Your task to perform on an android device: Add "apple airpods" to the cart on newegg, then select checkout. Image 0: 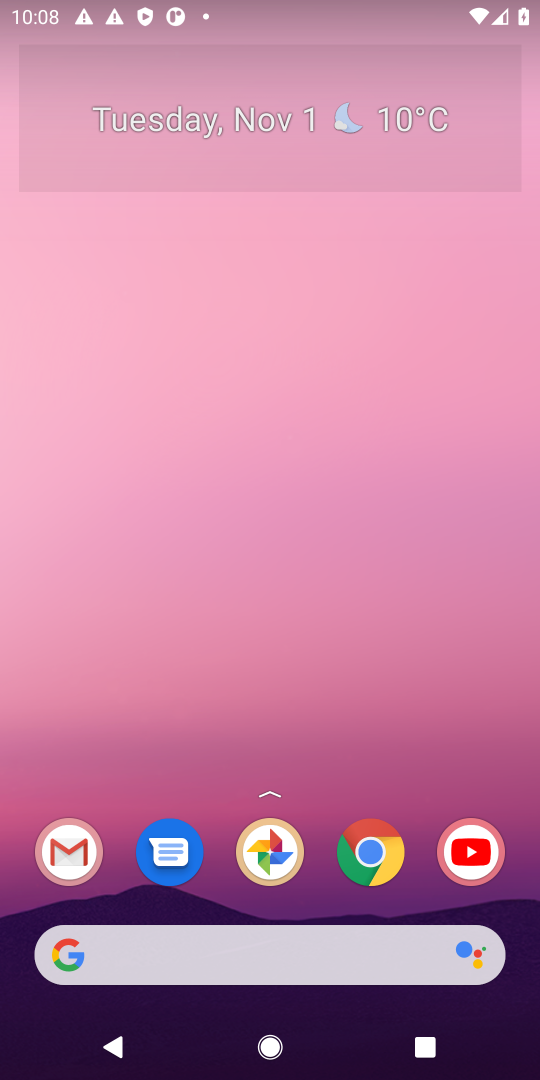
Step 0: press home button
Your task to perform on an android device: Add "apple airpods" to the cart on newegg, then select checkout. Image 1: 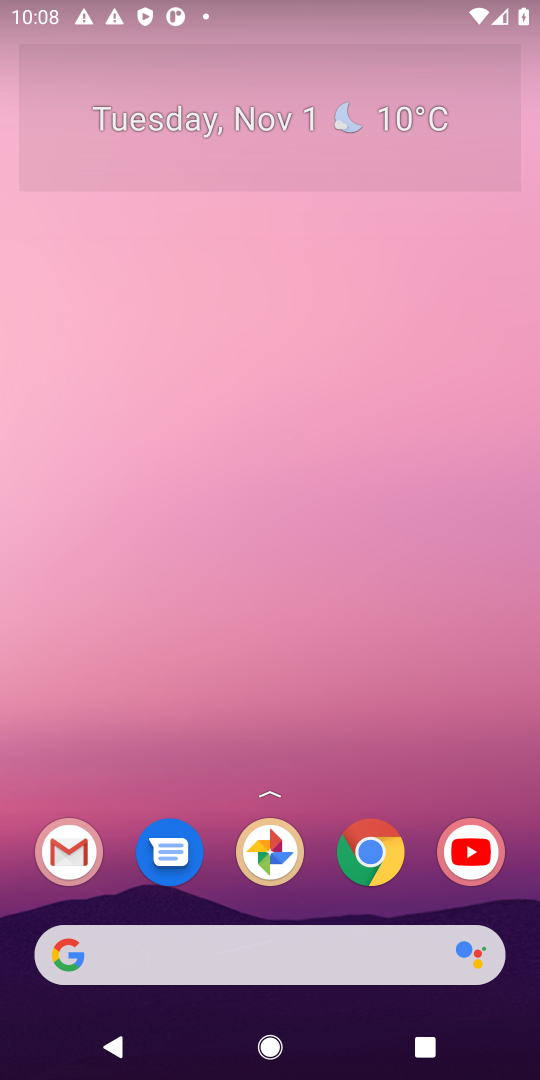
Step 1: click (69, 960)
Your task to perform on an android device: Add "apple airpods" to the cart on newegg, then select checkout. Image 2: 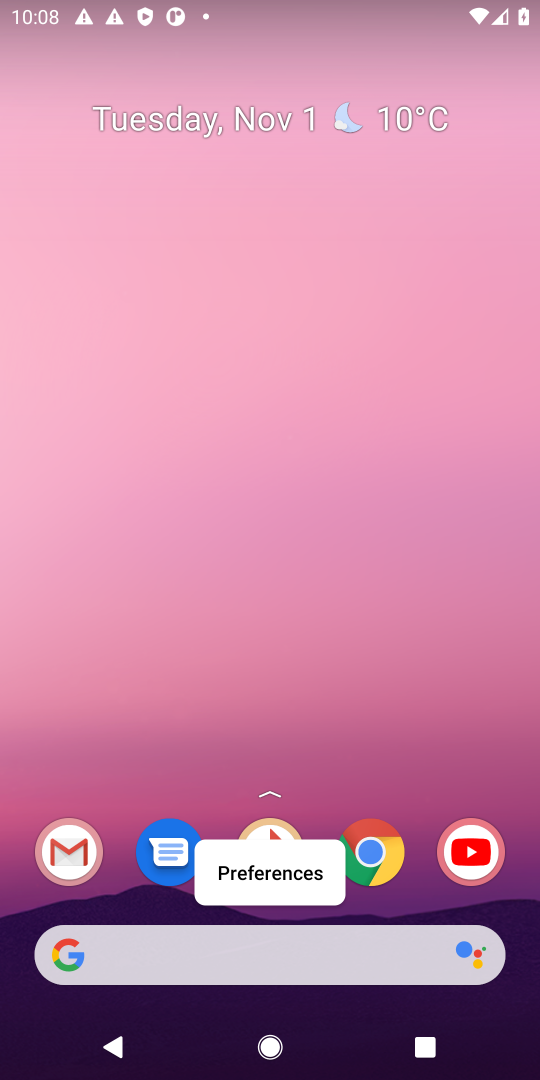
Step 2: click (73, 955)
Your task to perform on an android device: Add "apple airpods" to the cart on newegg, then select checkout. Image 3: 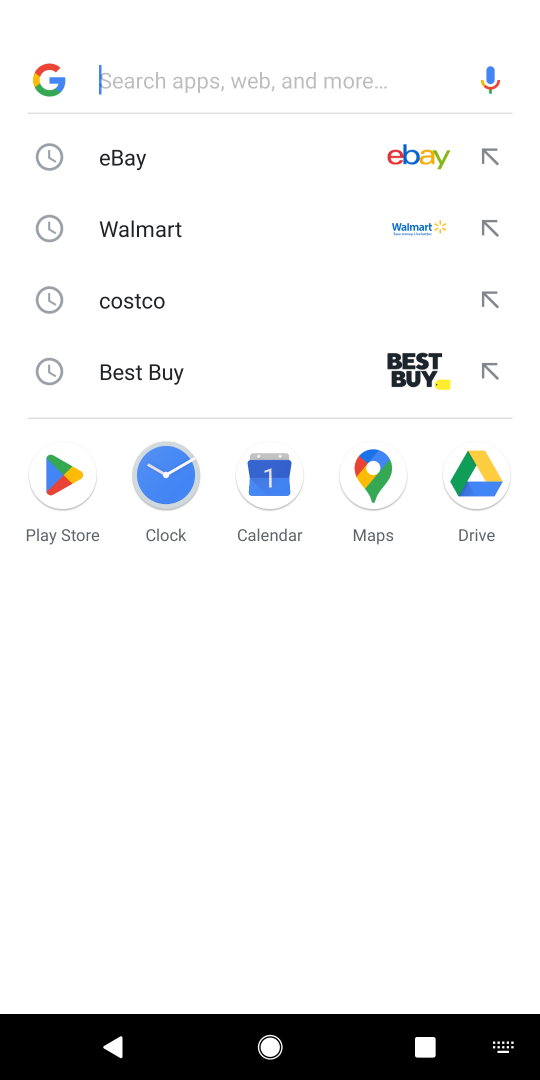
Step 3: type "newegg"
Your task to perform on an android device: Add "apple airpods" to the cart on newegg, then select checkout. Image 4: 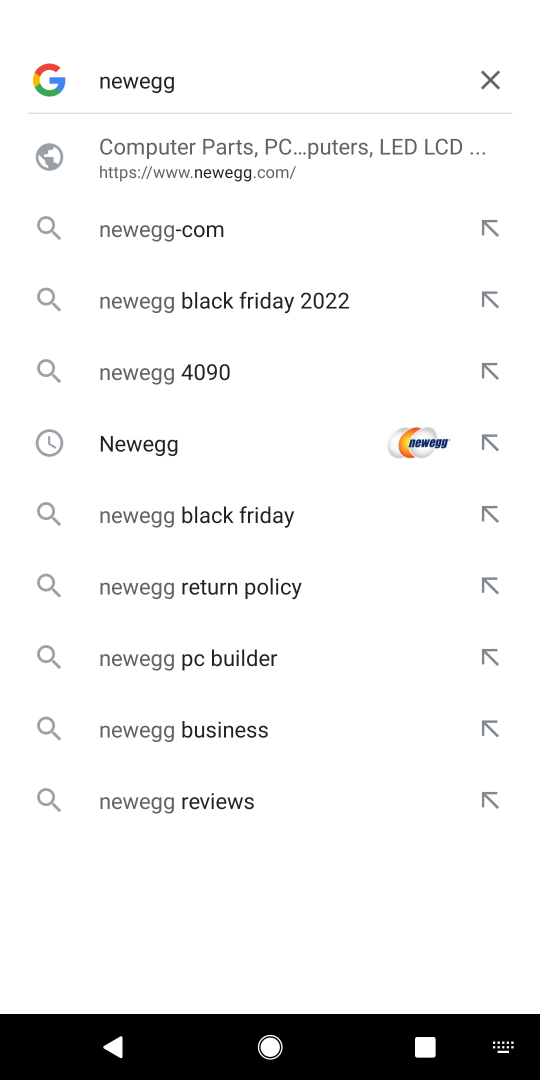
Step 4: press enter
Your task to perform on an android device: Add "apple airpods" to the cart on newegg, then select checkout. Image 5: 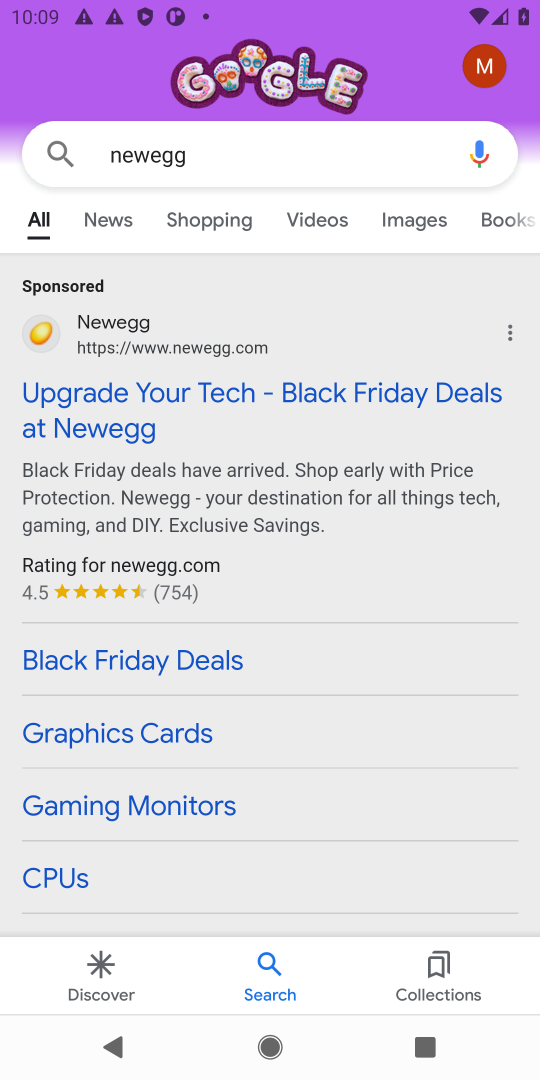
Step 5: drag from (402, 776) to (429, 266)
Your task to perform on an android device: Add "apple airpods" to the cart on newegg, then select checkout. Image 6: 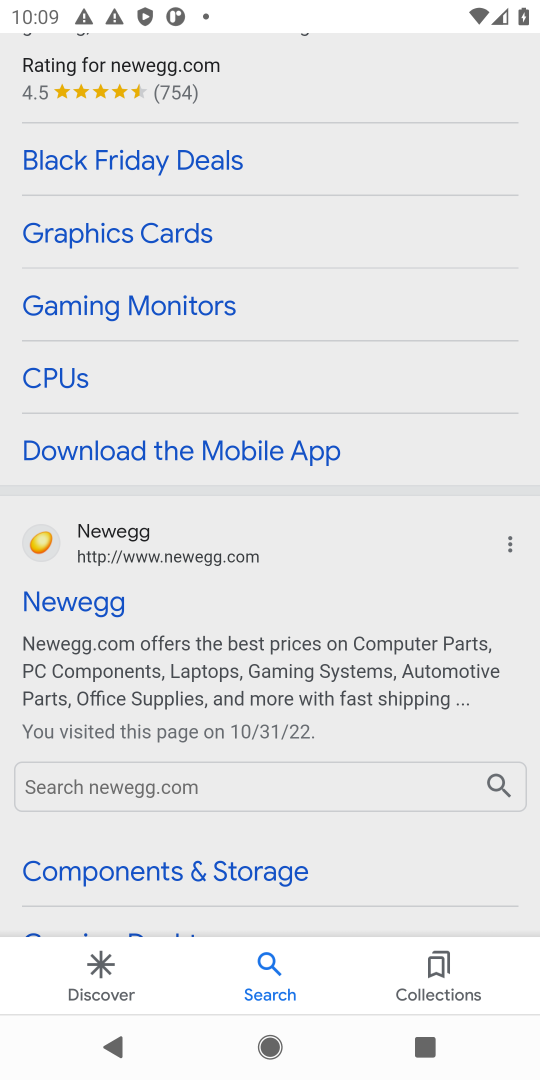
Step 6: click (86, 594)
Your task to perform on an android device: Add "apple airpods" to the cart on newegg, then select checkout. Image 7: 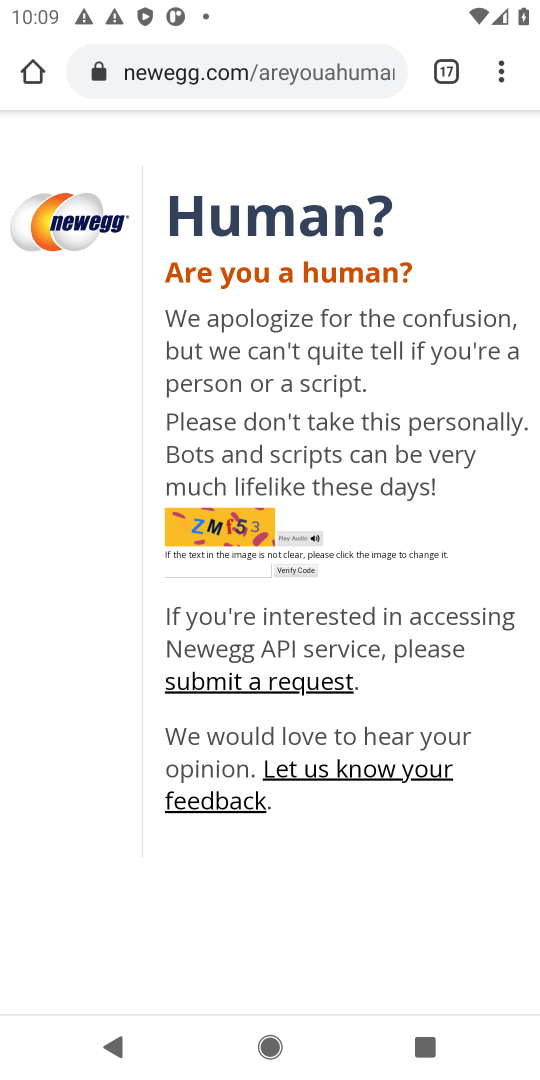
Step 7: drag from (400, 861) to (463, 738)
Your task to perform on an android device: Add "apple airpods" to the cart on newegg, then select checkout. Image 8: 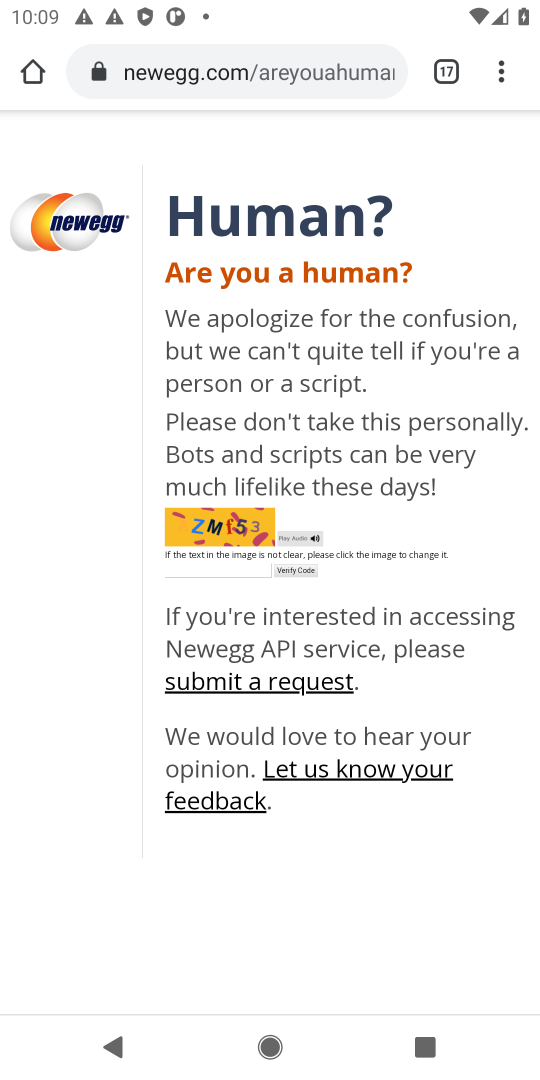
Step 8: click (249, 685)
Your task to perform on an android device: Add "apple airpods" to the cart on newegg, then select checkout. Image 9: 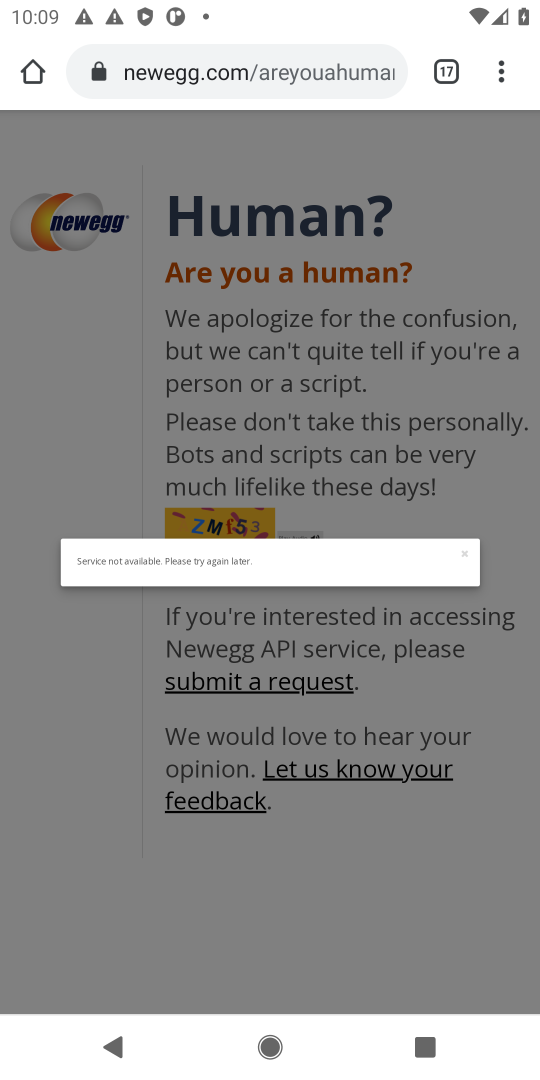
Step 9: click (261, 598)
Your task to perform on an android device: Add "apple airpods" to the cart on newegg, then select checkout. Image 10: 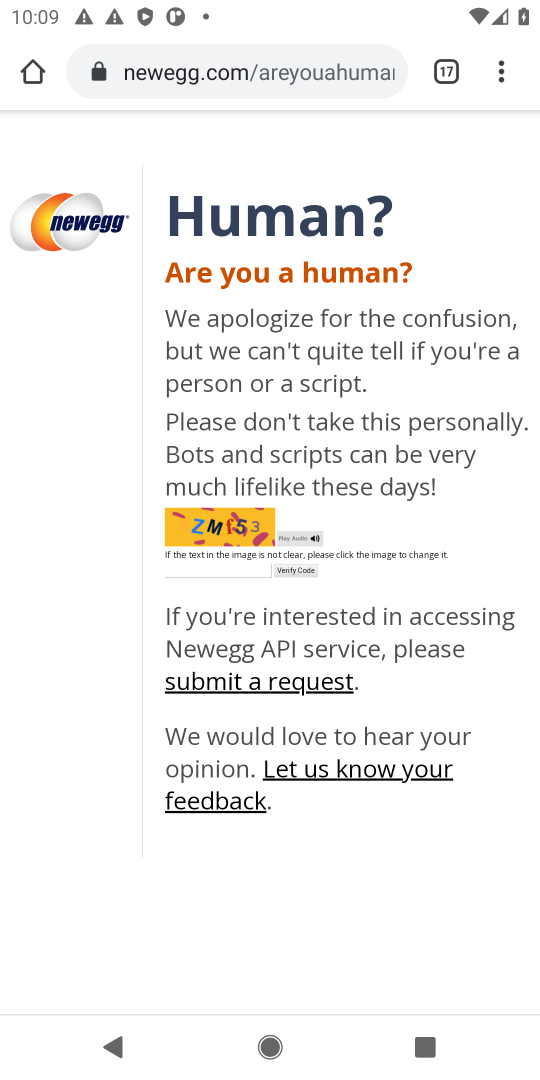
Step 10: task complete